Your task to perform on an android device: Show me productivity apps on the Play Store Image 0: 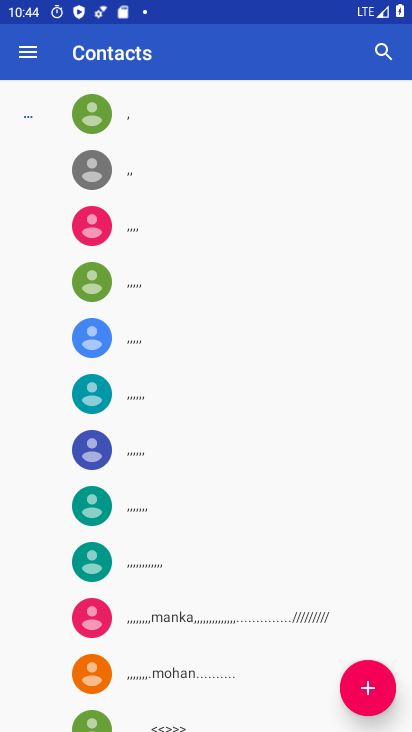
Step 0: press home button
Your task to perform on an android device: Show me productivity apps on the Play Store Image 1: 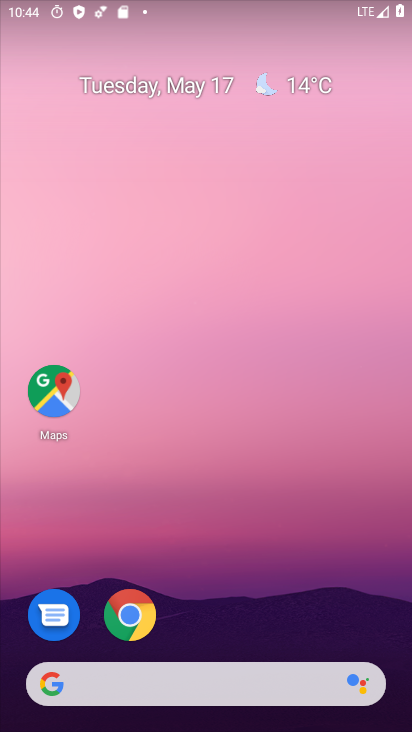
Step 1: drag from (240, 692) to (406, 113)
Your task to perform on an android device: Show me productivity apps on the Play Store Image 2: 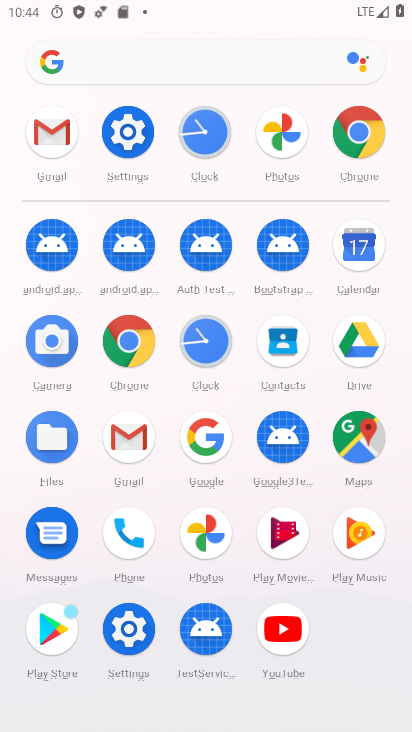
Step 2: click (49, 630)
Your task to perform on an android device: Show me productivity apps on the Play Store Image 3: 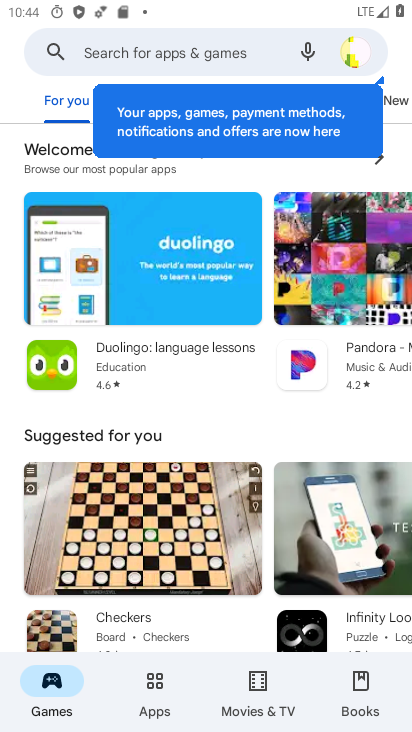
Step 3: click (155, 698)
Your task to perform on an android device: Show me productivity apps on the Play Store Image 4: 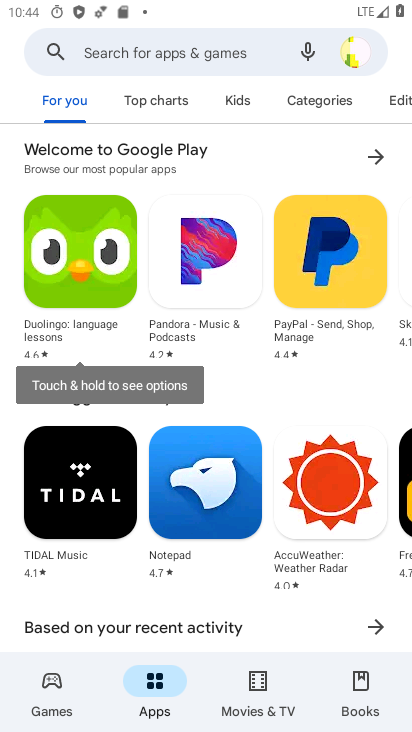
Step 4: click (340, 100)
Your task to perform on an android device: Show me productivity apps on the Play Store Image 5: 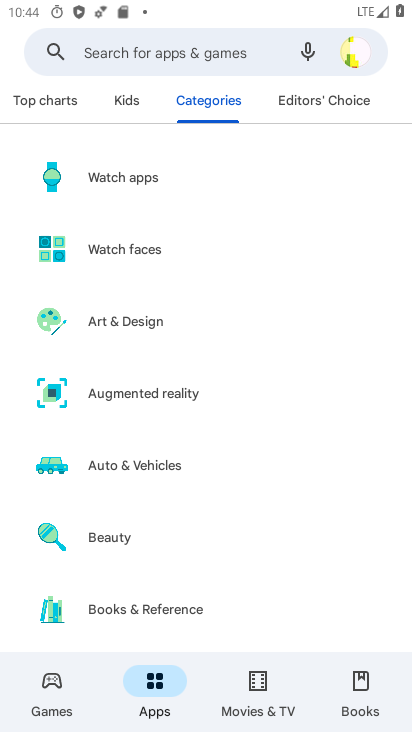
Step 5: drag from (240, 599) to (377, 81)
Your task to perform on an android device: Show me productivity apps on the Play Store Image 6: 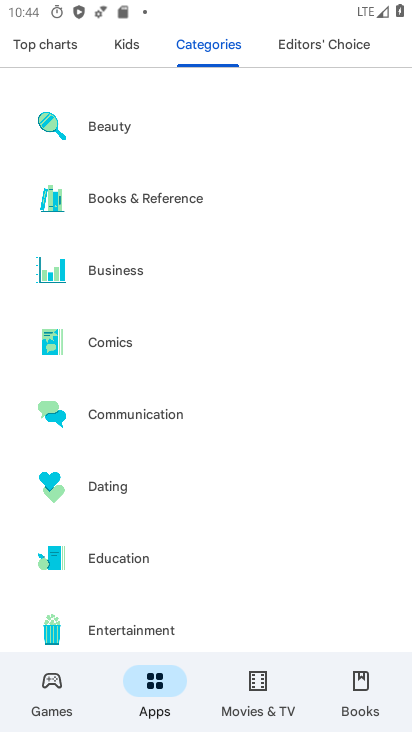
Step 6: drag from (208, 564) to (367, 21)
Your task to perform on an android device: Show me productivity apps on the Play Store Image 7: 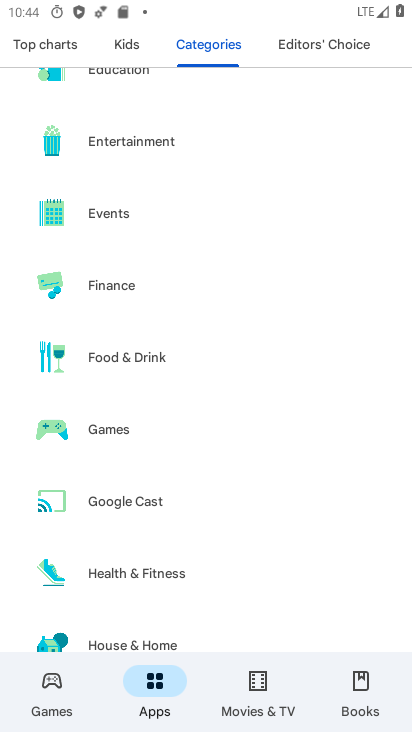
Step 7: drag from (210, 593) to (399, 46)
Your task to perform on an android device: Show me productivity apps on the Play Store Image 8: 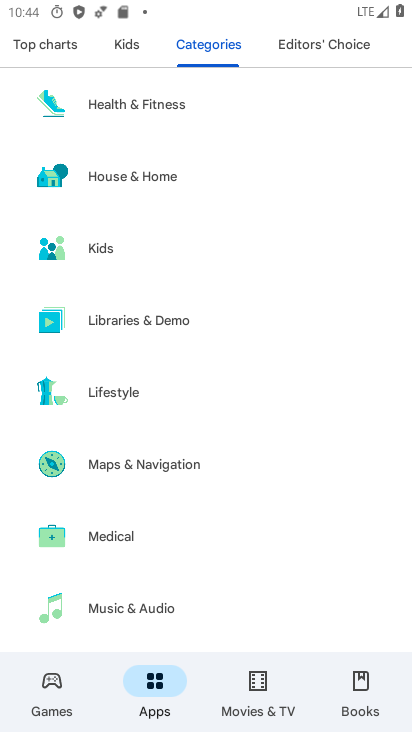
Step 8: drag from (212, 602) to (367, 119)
Your task to perform on an android device: Show me productivity apps on the Play Store Image 9: 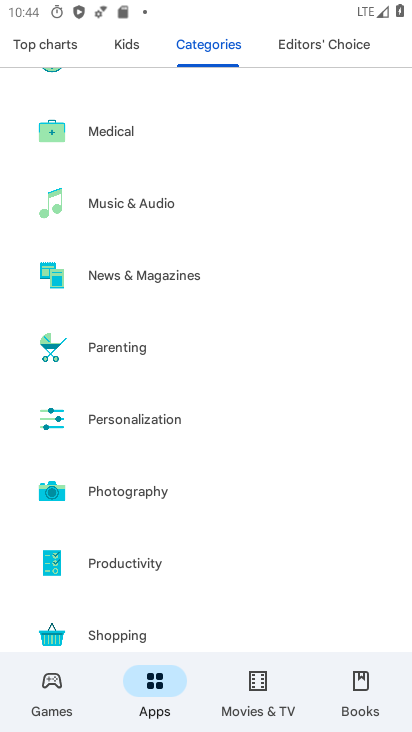
Step 9: click (134, 564)
Your task to perform on an android device: Show me productivity apps on the Play Store Image 10: 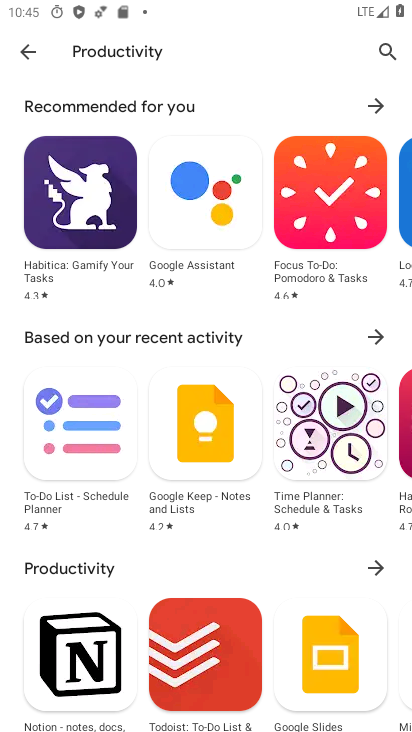
Step 10: task complete